Your task to perform on an android device: Go to network settings Image 0: 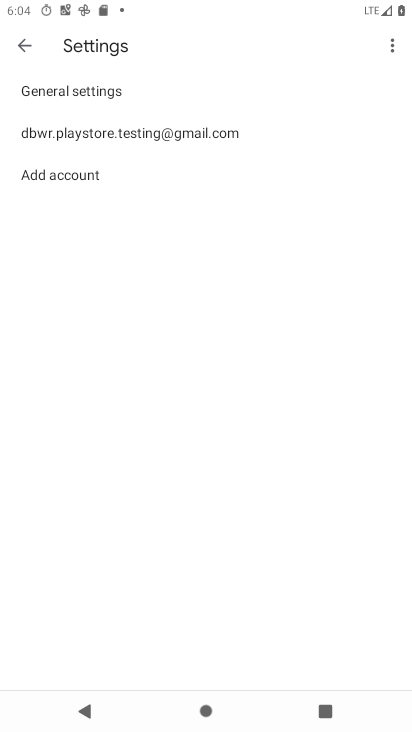
Step 0: press home button
Your task to perform on an android device: Go to network settings Image 1: 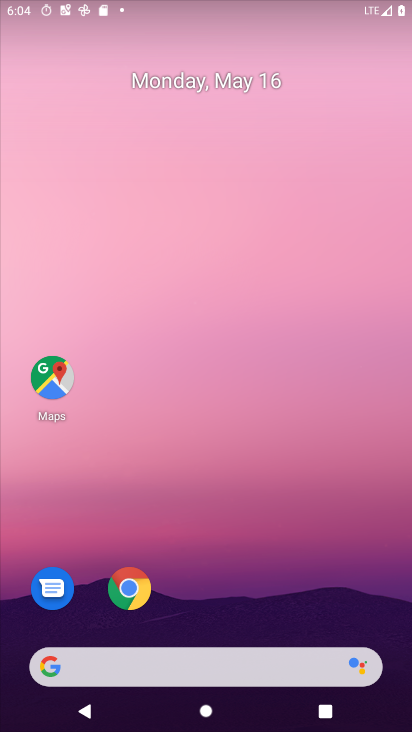
Step 1: drag from (272, 389) to (222, 43)
Your task to perform on an android device: Go to network settings Image 2: 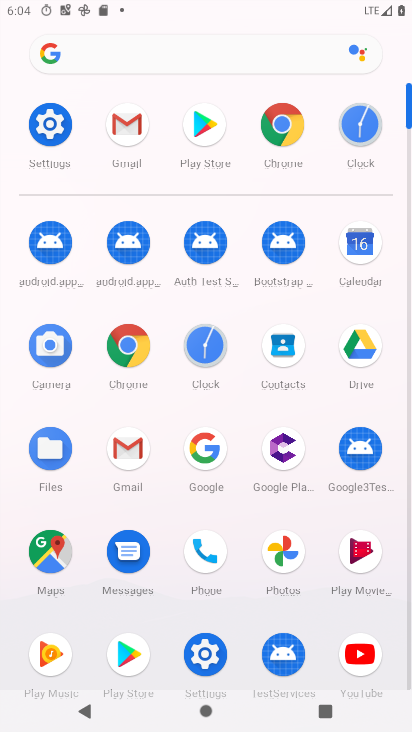
Step 2: click (59, 122)
Your task to perform on an android device: Go to network settings Image 3: 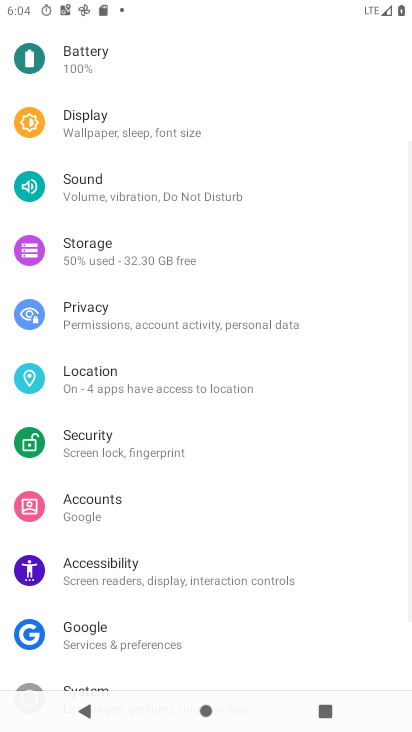
Step 3: drag from (220, 118) to (216, 642)
Your task to perform on an android device: Go to network settings Image 4: 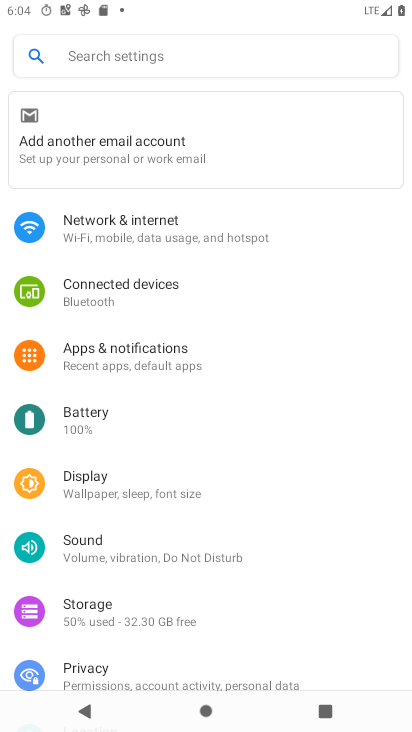
Step 4: click (193, 237)
Your task to perform on an android device: Go to network settings Image 5: 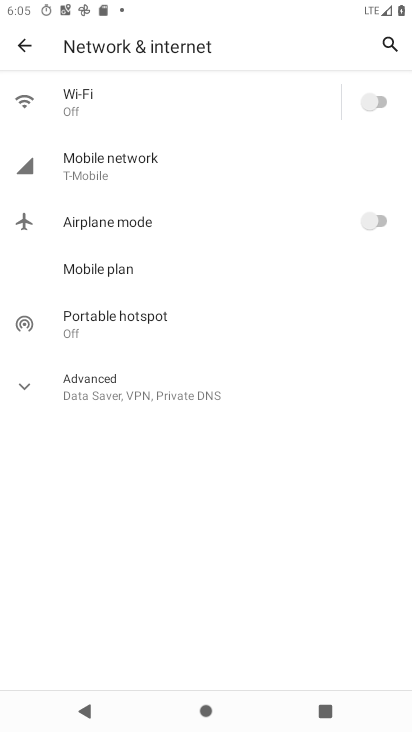
Step 5: task complete